Your task to perform on an android device: Open settings on Google Maps Image 0: 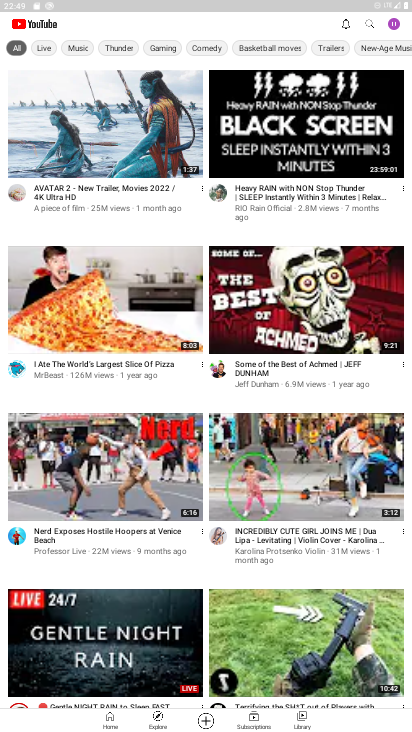
Step 0: press home button
Your task to perform on an android device: Open settings on Google Maps Image 1: 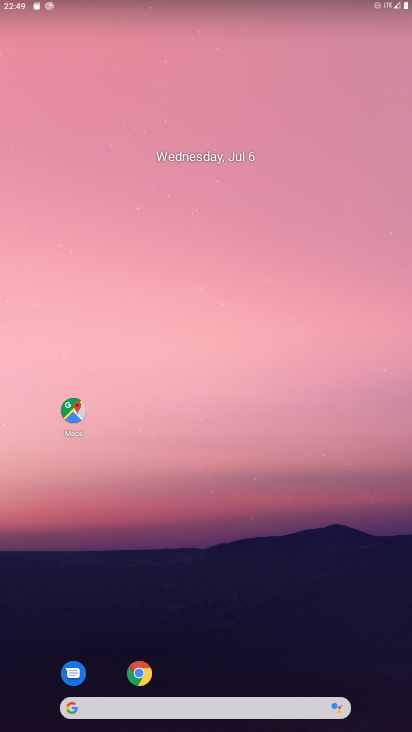
Step 1: click (71, 407)
Your task to perform on an android device: Open settings on Google Maps Image 2: 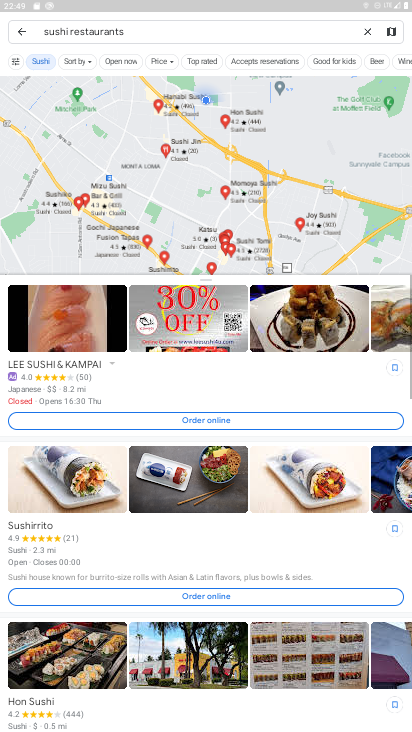
Step 2: click (24, 34)
Your task to perform on an android device: Open settings on Google Maps Image 3: 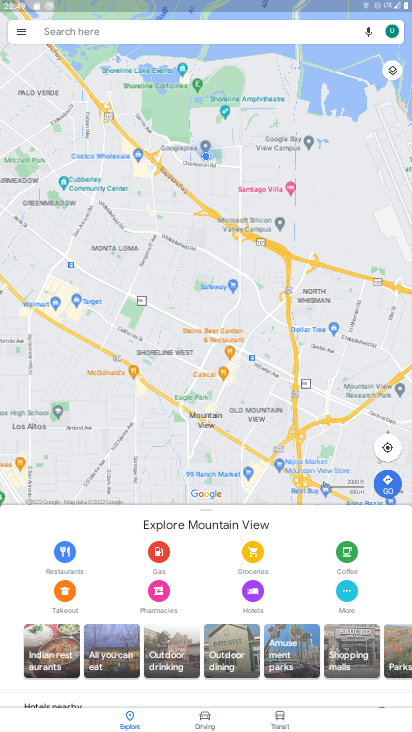
Step 3: click (24, 34)
Your task to perform on an android device: Open settings on Google Maps Image 4: 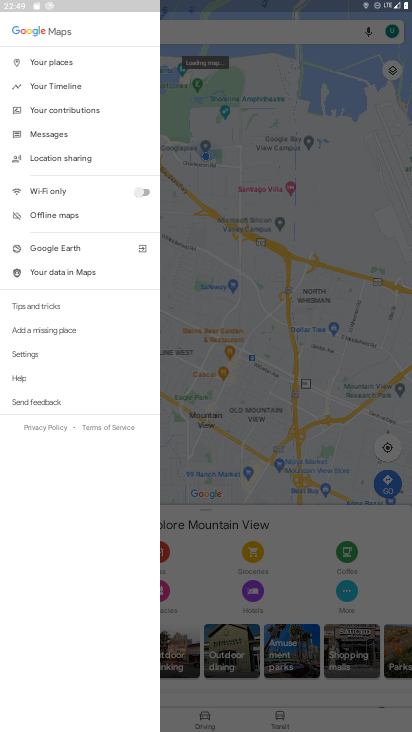
Step 4: click (30, 353)
Your task to perform on an android device: Open settings on Google Maps Image 5: 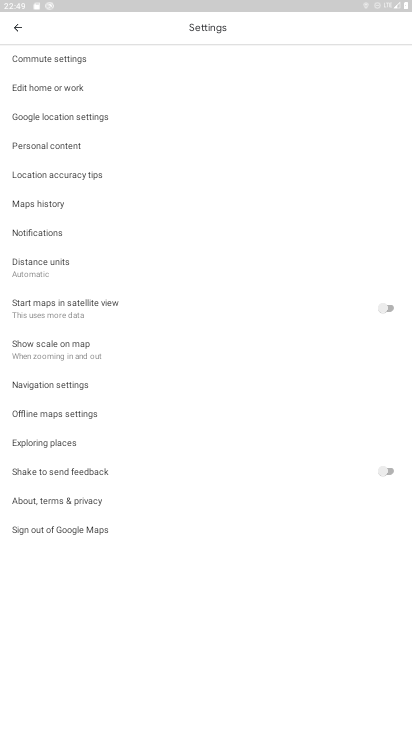
Step 5: task complete